Your task to perform on an android device: Show me the best rated 4K TV on Walmart. Image 0: 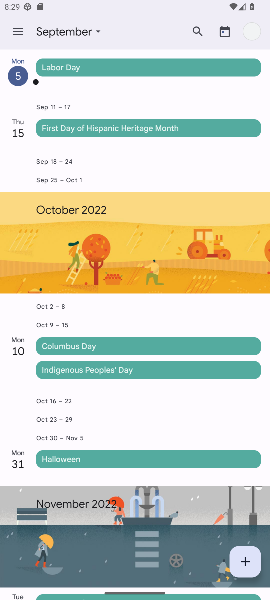
Step 0: press home button
Your task to perform on an android device: Show me the best rated 4K TV on Walmart. Image 1: 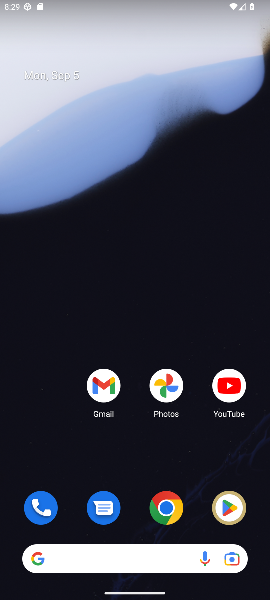
Step 1: click (173, 507)
Your task to perform on an android device: Show me the best rated 4K TV on Walmart. Image 2: 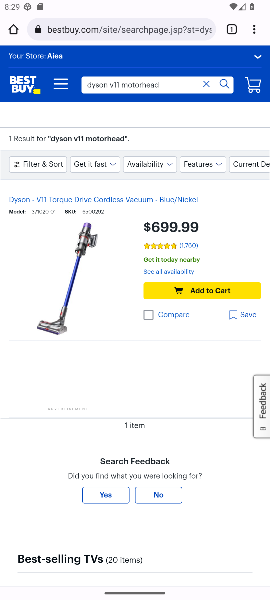
Step 2: click (134, 29)
Your task to perform on an android device: Show me the best rated 4K TV on Walmart. Image 3: 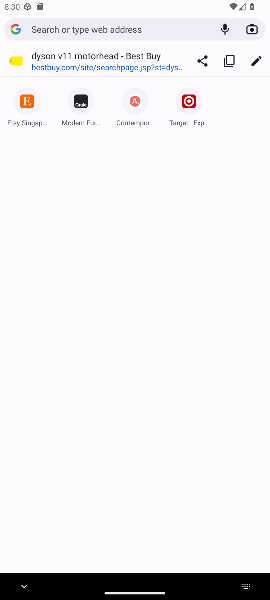
Step 3: type "Walmart."
Your task to perform on an android device: Show me the best rated 4K TV on Walmart. Image 4: 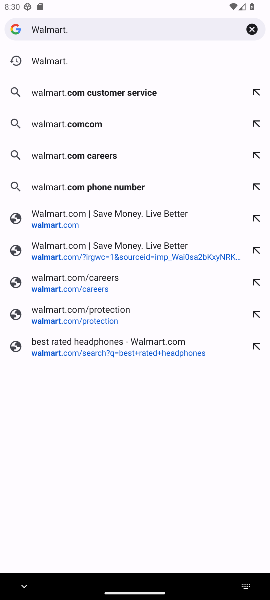
Step 4: click (31, 61)
Your task to perform on an android device: Show me the best rated 4K TV on Walmart. Image 5: 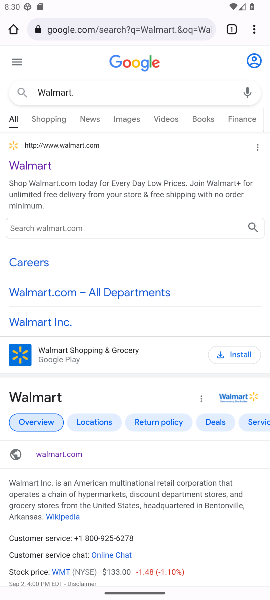
Step 5: drag from (113, 363) to (117, 88)
Your task to perform on an android device: Show me the best rated 4K TV on Walmart. Image 6: 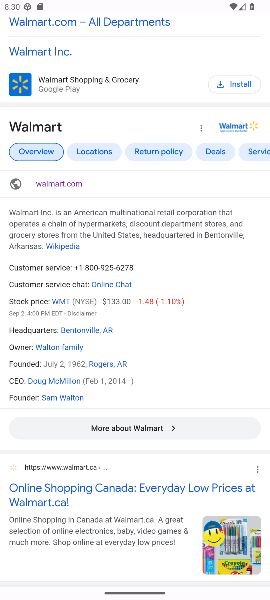
Step 6: drag from (97, 446) to (90, 111)
Your task to perform on an android device: Show me the best rated 4K TV on Walmart. Image 7: 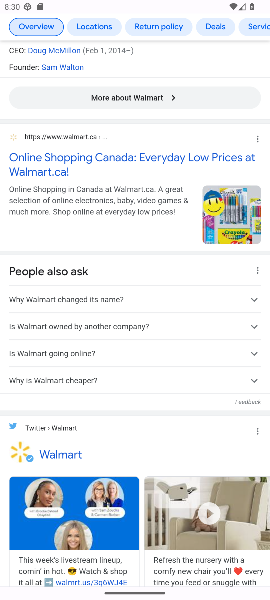
Step 7: drag from (120, 230) to (122, 581)
Your task to perform on an android device: Show me the best rated 4K TV on Walmart. Image 8: 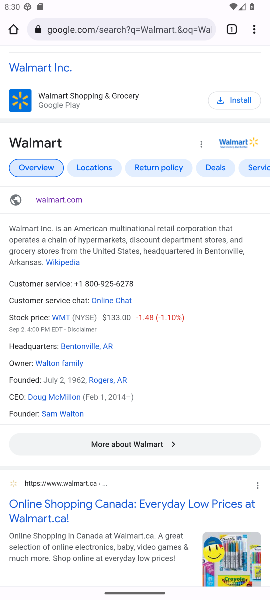
Step 8: drag from (122, 98) to (77, 472)
Your task to perform on an android device: Show me the best rated 4K TV on Walmart. Image 9: 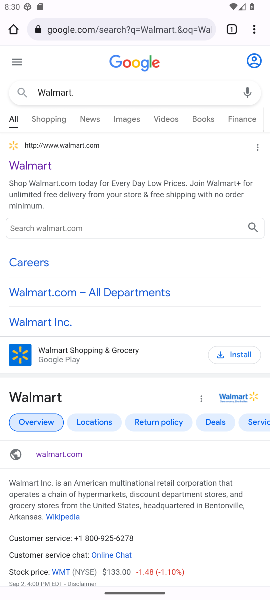
Step 9: click (31, 167)
Your task to perform on an android device: Show me the best rated 4K TV on Walmart. Image 10: 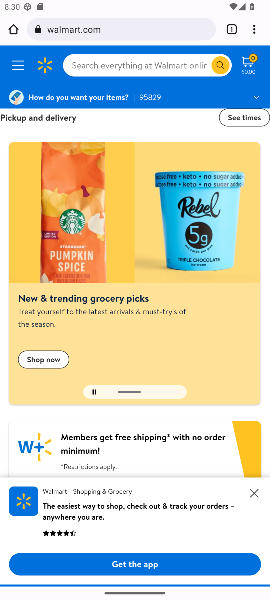
Step 10: click (152, 67)
Your task to perform on an android device: Show me the best rated 4K TV on Walmart. Image 11: 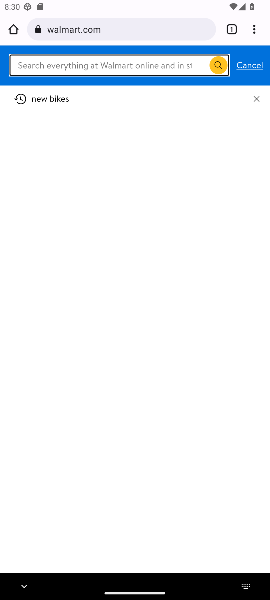
Step 11: type "best rated 4K TV"
Your task to perform on an android device: Show me the best rated 4K TV on Walmart. Image 12: 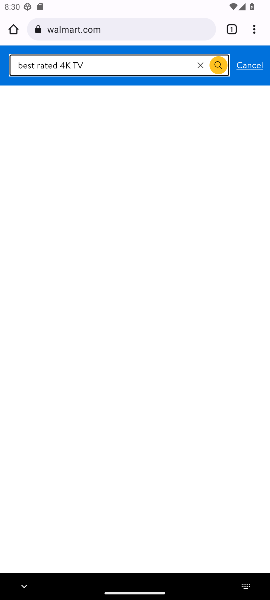
Step 12: click (218, 65)
Your task to perform on an android device: Show me the best rated 4K TV on Walmart. Image 13: 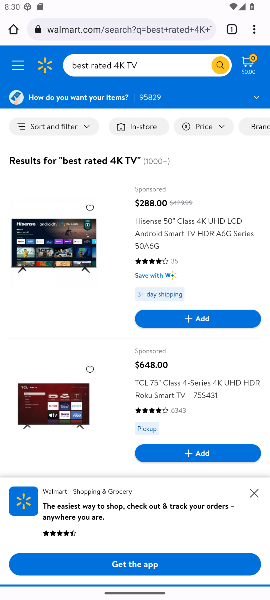
Step 13: task complete